Your task to perform on an android device: Open the phone app and click the voicemail tab. Image 0: 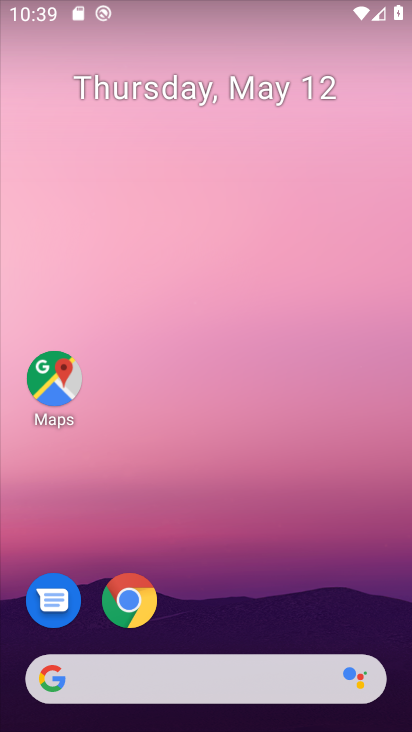
Step 0: click (73, 72)
Your task to perform on an android device: Open the phone app and click the voicemail tab. Image 1: 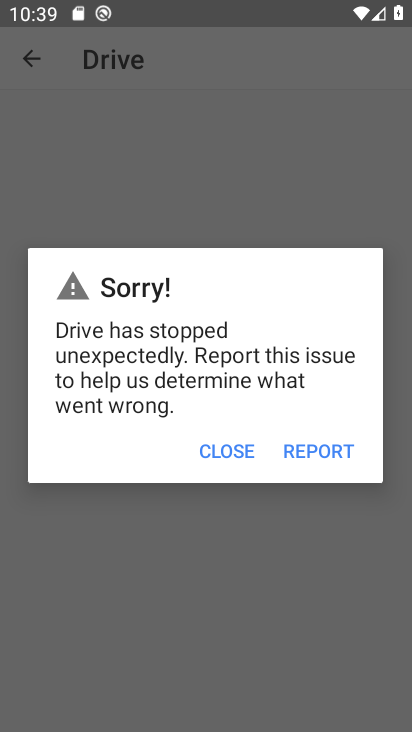
Step 1: press back button
Your task to perform on an android device: Open the phone app and click the voicemail tab. Image 2: 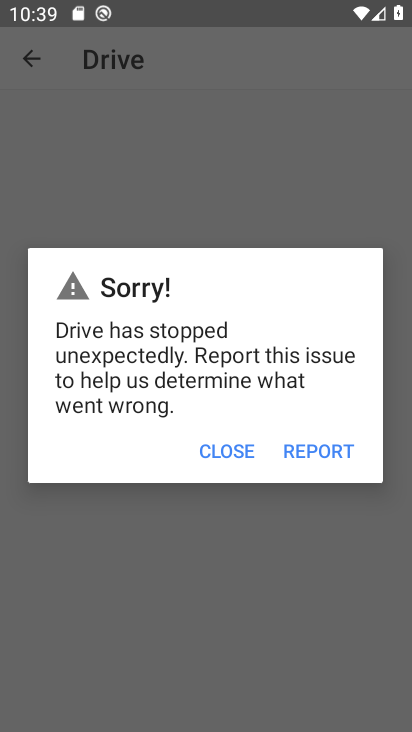
Step 2: press home button
Your task to perform on an android device: Open the phone app and click the voicemail tab. Image 3: 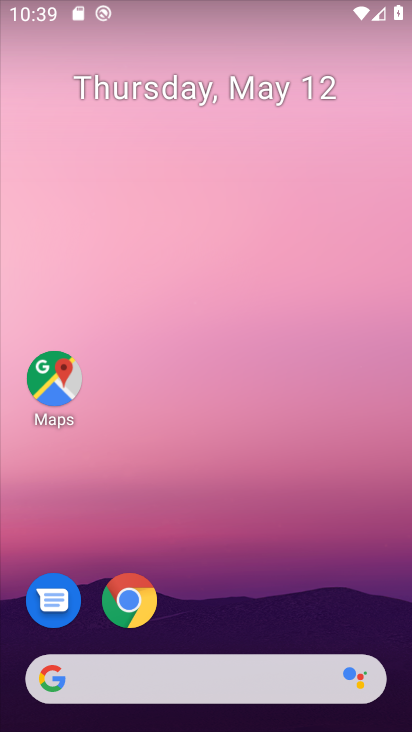
Step 3: drag from (196, 484) to (46, 79)
Your task to perform on an android device: Open the phone app and click the voicemail tab. Image 4: 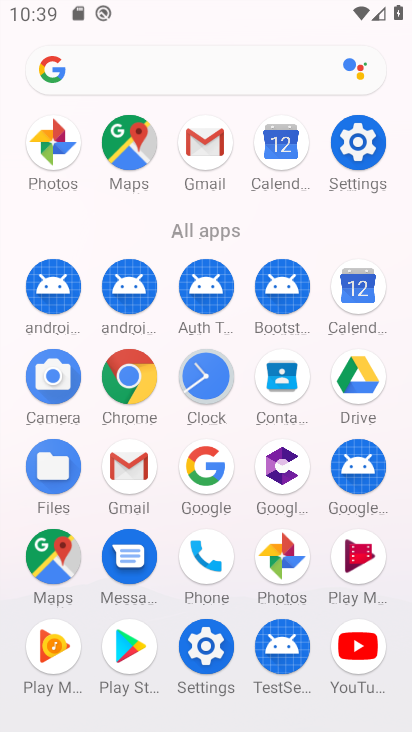
Step 4: click (207, 550)
Your task to perform on an android device: Open the phone app and click the voicemail tab. Image 5: 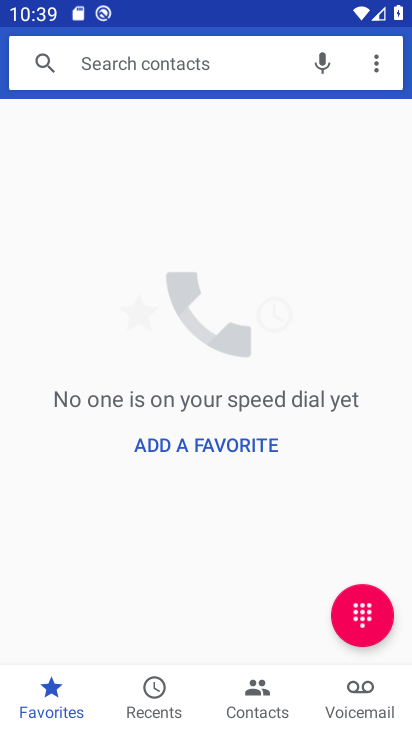
Step 5: click (371, 697)
Your task to perform on an android device: Open the phone app and click the voicemail tab. Image 6: 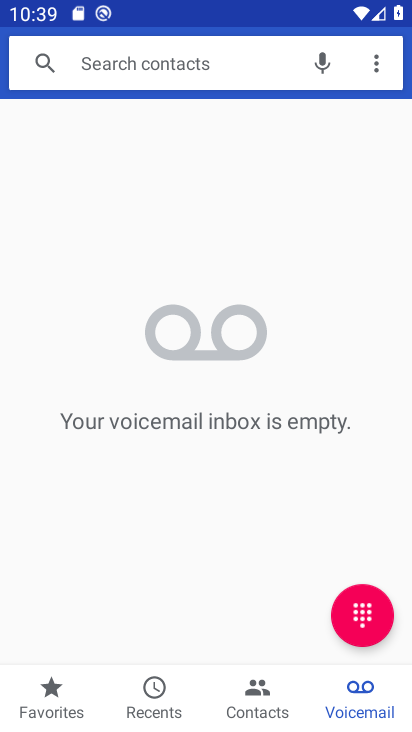
Step 6: task complete